Your task to perform on an android device: Search for flights from Barcelona to Mexico city Image 0: 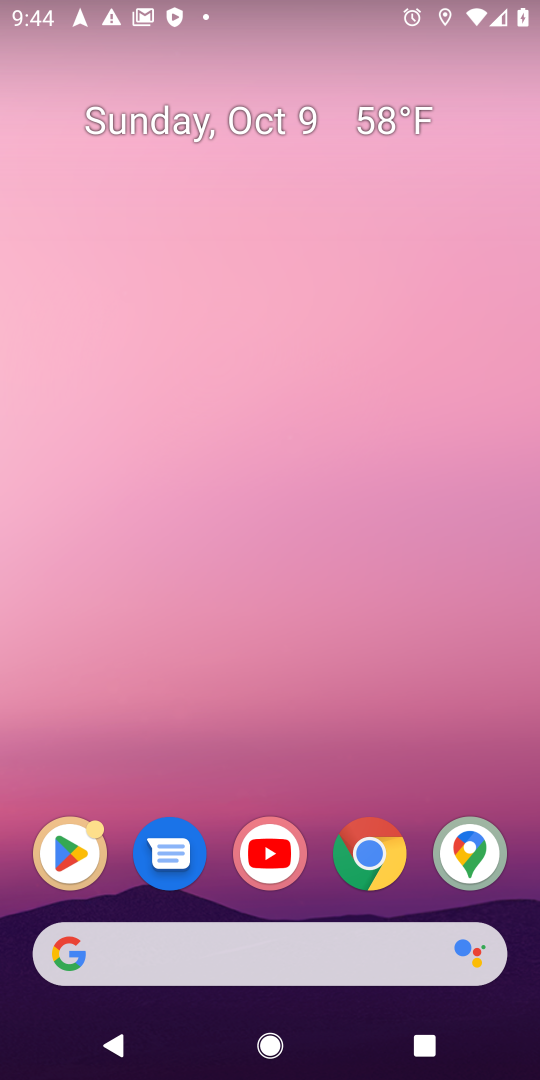
Step 0: click (391, 876)
Your task to perform on an android device: Search for flights from Barcelona to Mexico city Image 1: 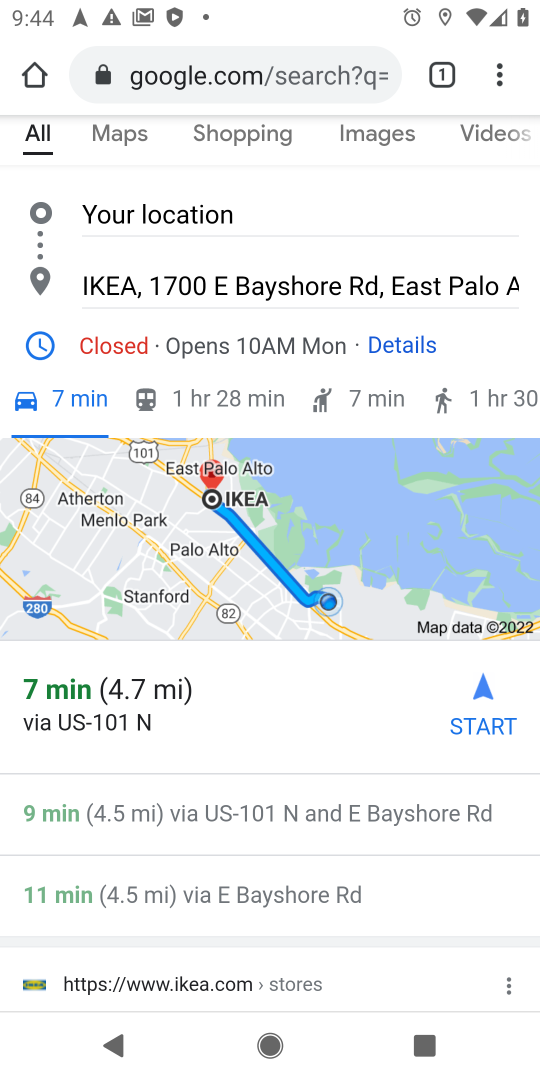
Step 1: click (339, 76)
Your task to perform on an android device: Search for flights from Barcelona to Mexico city Image 2: 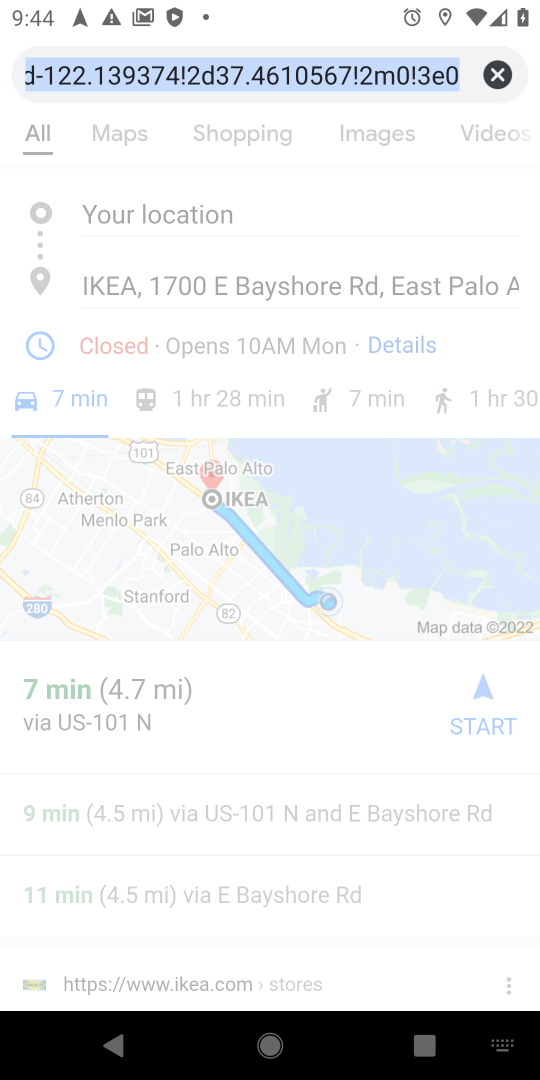
Step 2: type "barcelona to mexico city flight"
Your task to perform on an android device: Search for flights from Barcelona to Mexico city Image 3: 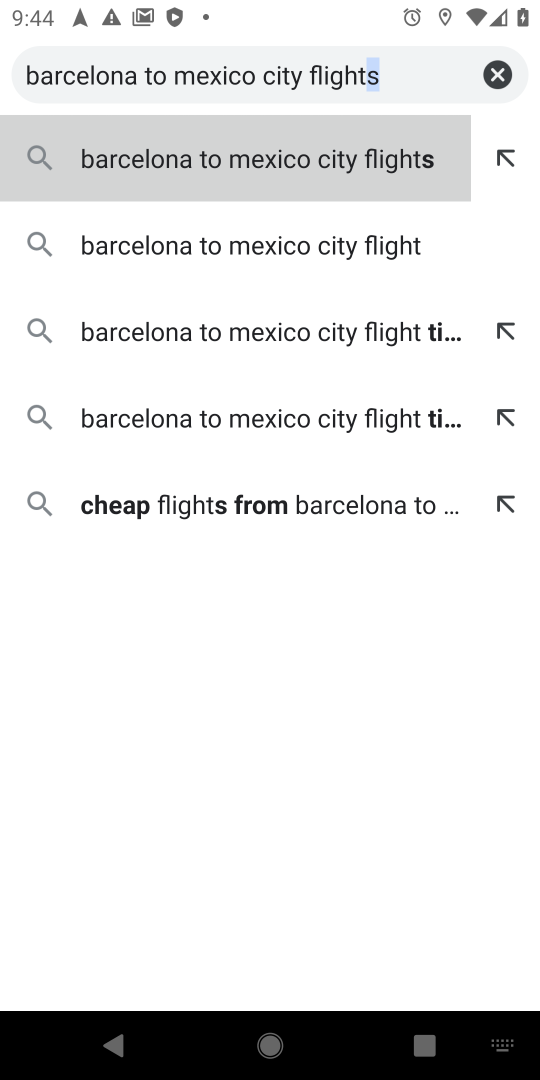
Step 3: click (386, 145)
Your task to perform on an android device: Search for flights from Barcelona to Mexico city Image 4: 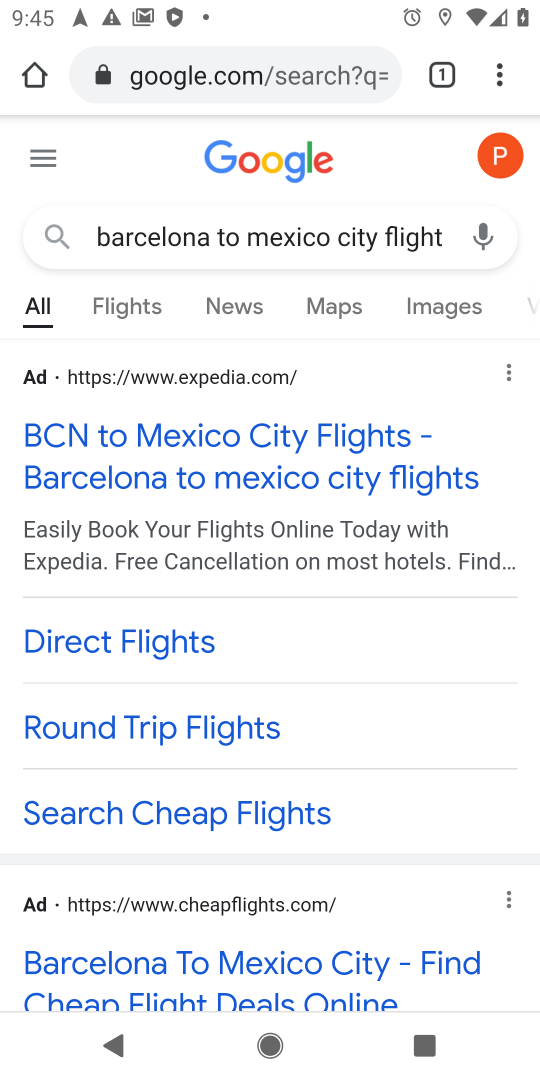
Step 4: task complete